Your task to perform on an android device: Show me productivity apps on the Play Store Image 0: 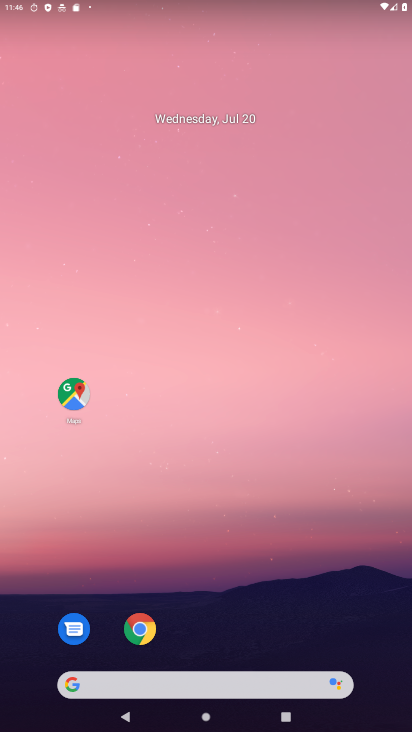
Step 0: drag from (184, 702) to (197, 57)
Your task to perform on an android device: Show me productivity apps on the Play Store Image 1: 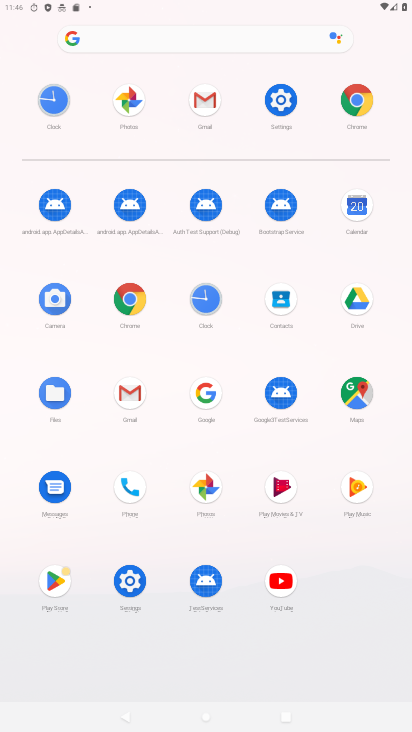
Step 1: click (53, 577)
Your task to perform on an android device: Show me productivity apps on the Play Store Image 2: 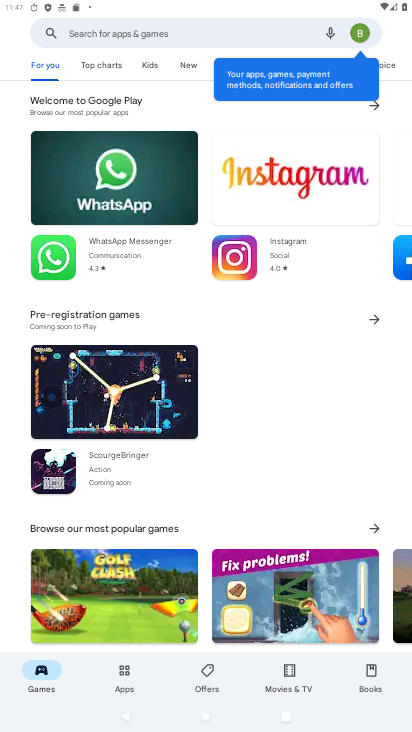
Step 2: drag from (187, 560) to (266, 209)
Your task to perform on an android device: Show me productivity apps on the Play Store Image 3: 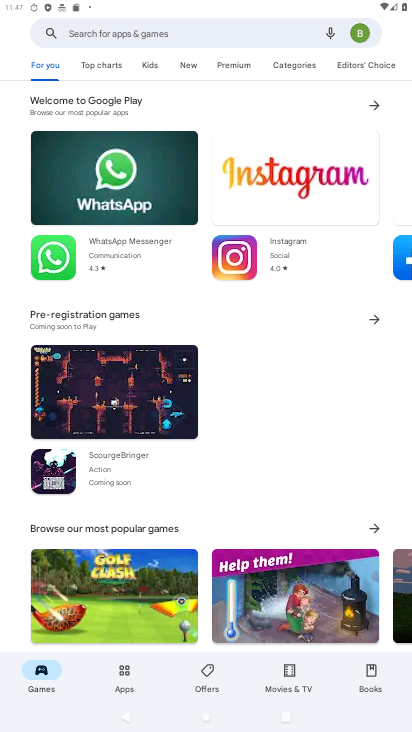
Step 3: click (117, 670)
Your task to perform on an android device: Show me productivity apps on the Play Store Image 4: 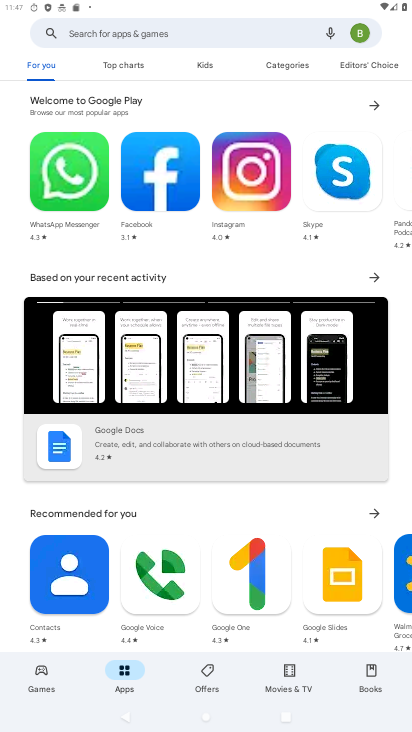
Step 4: drag from (212, 514) to (179, 94)
Your task to perform on an android device: Show me productivity apps on the Play Store Image 5: 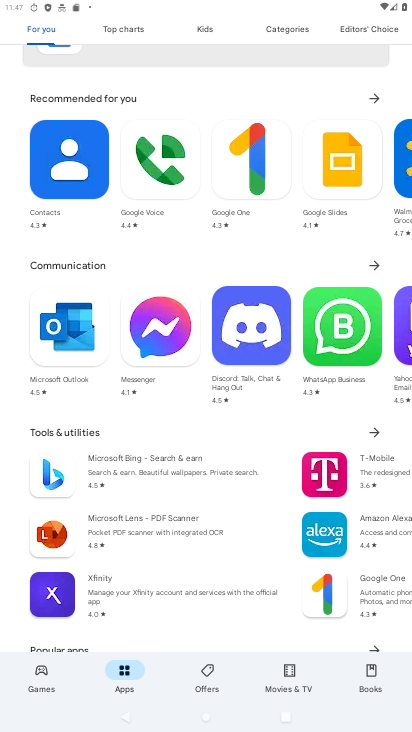
Step 5: drag from (140, 631) to (211, 202)
Your task to perform on an android device: Show me productivity apps on the Play Store Image 6: 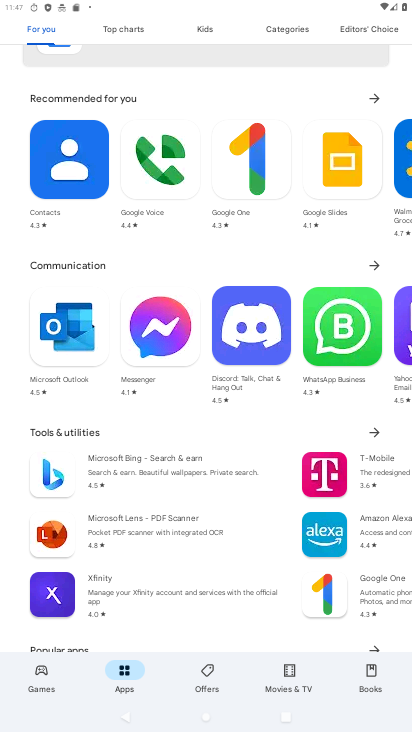
Step 6: drag from (183, 637) to (280, 198)
Your task to perform on an android device: Show me productivity apps on the Play Store Image 7: 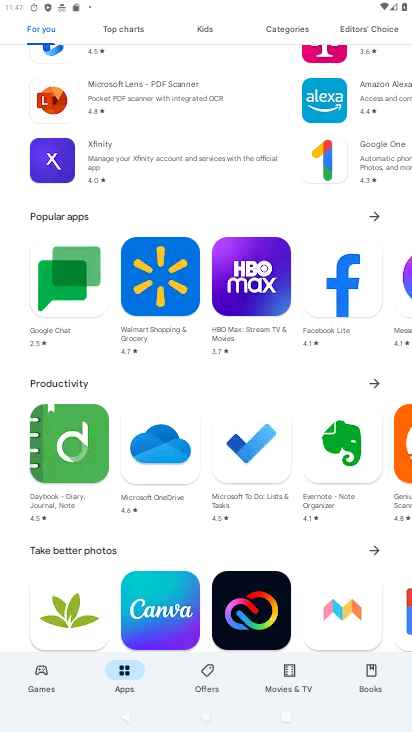
Step 7: click (381, 383)
Your task to perform on an android device: Show me productivity apps on the Play Store Image 8: 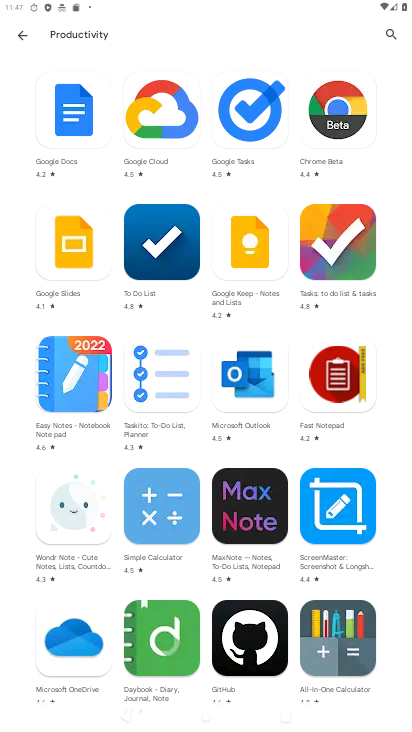
Step 8: task complete